Your task to perform on an android device: Open Wikipedia Image 0: 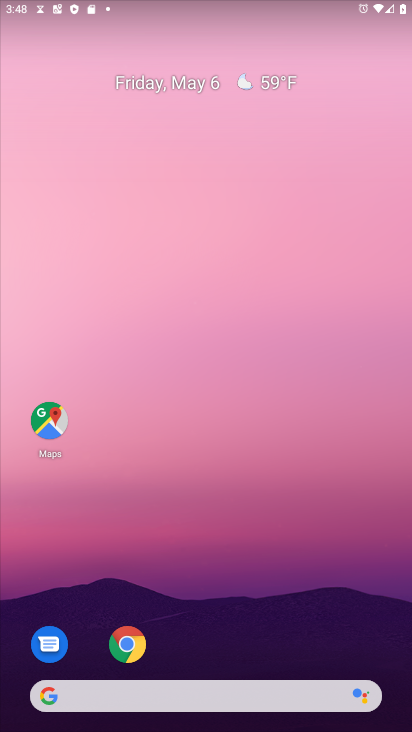
Step 0: click (129, 642)
Your task to perform on an android device: Open Wikipedia Image 1: 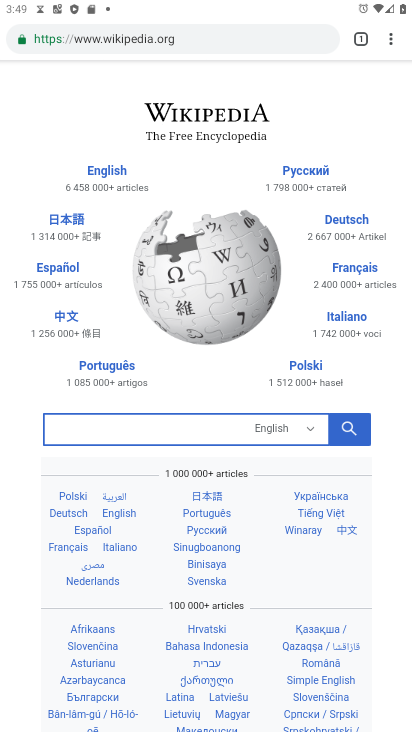
Step 1: task complete